Your task to perform on an android device: Open maps Image 0: 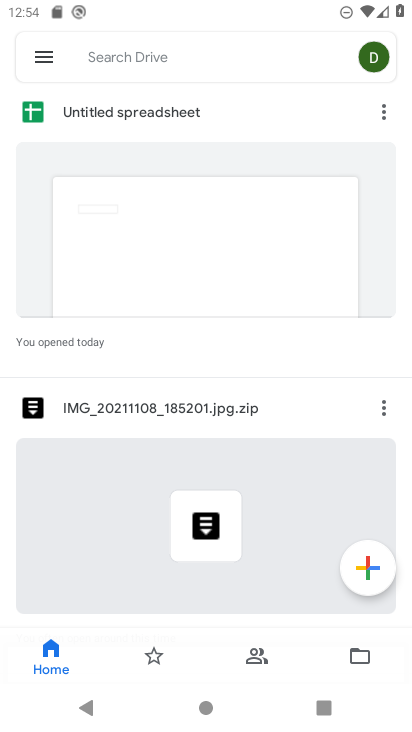
Step 0: press home button
Your task to perform on an android device: Open maps Image 1: 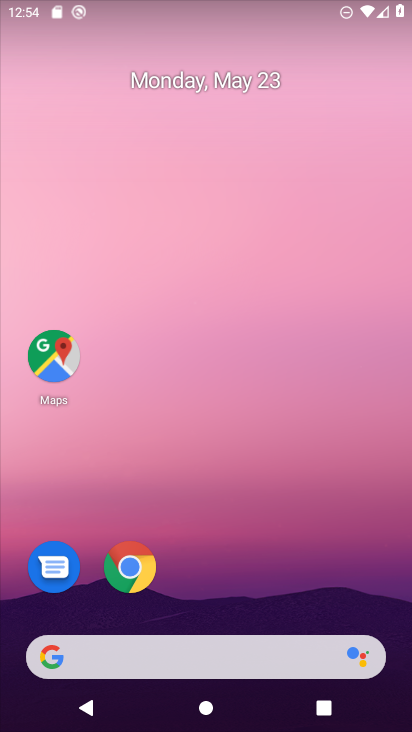
Step 1: click (65, 349)
Your task to perform on an android device: Open maps Image 2: 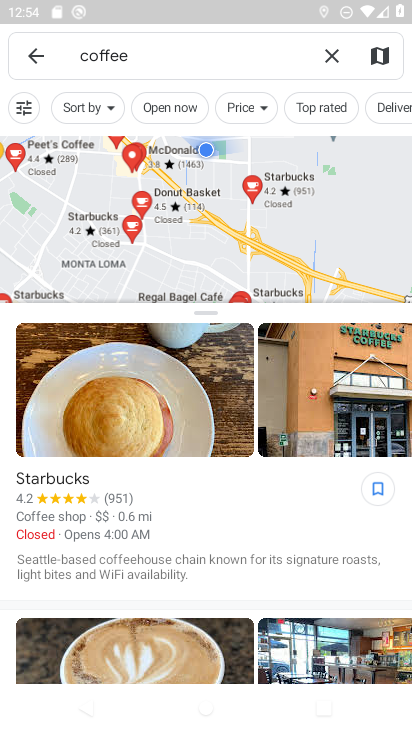
Step 2: task complete